Your task to perform on an android device: stop showing notifications on the lock screen Image 0: 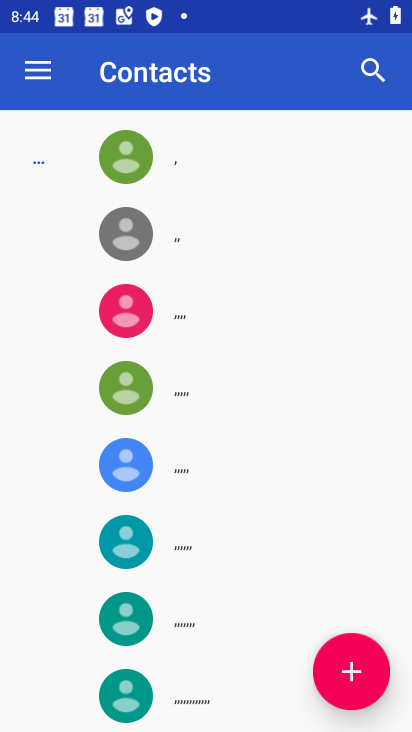
Step 0: click (259, 567)
Your task to perform on an android device: stop showing notifications on the lock screen Image 1: 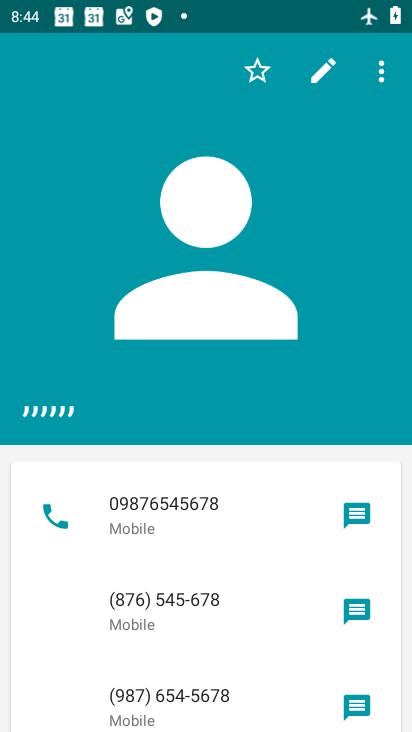
Step 1: press home button
Your task to perform on an android device: stop showing notifications on the lock screen Image 2: 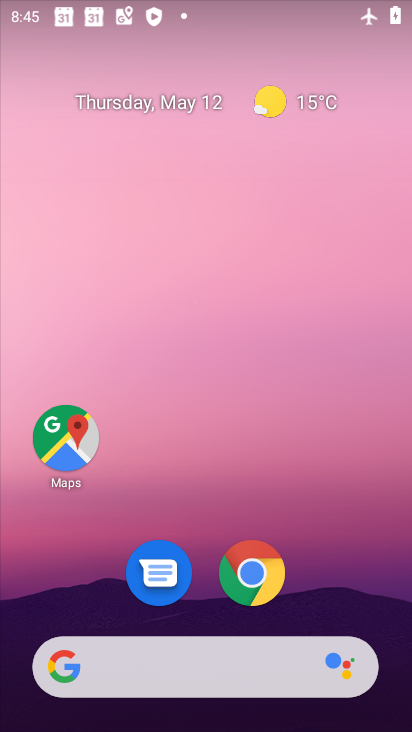
Step 2: drag from (339, 506) to (135, 101)
Your task to perform on an android device: stop showing notifications on the lock screen Image 3: 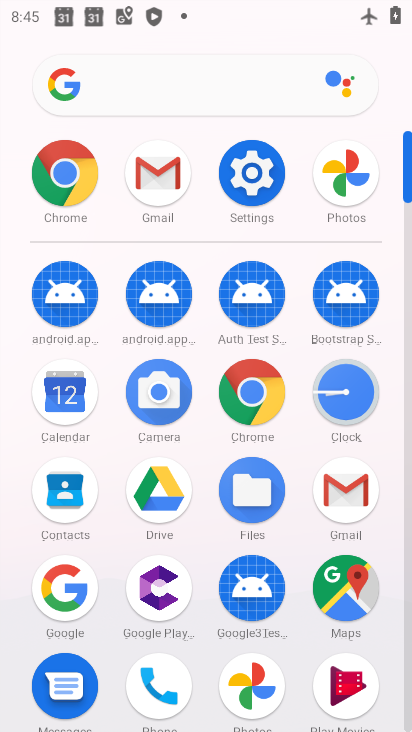
Step 3: click (253, 195)
Your task to perform on an android device: stop showing notifications on the lock screen Image 4: 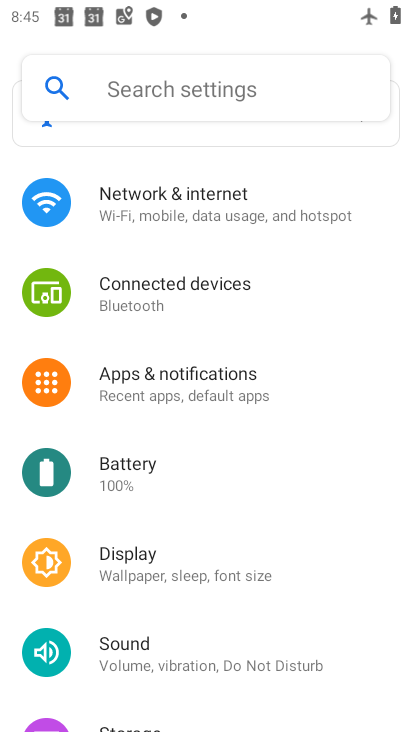
Step 4: drag from (218, 418) to (157, 141)
Your task to perform on an android device: stop showing notifications on the lock screen Image 5: 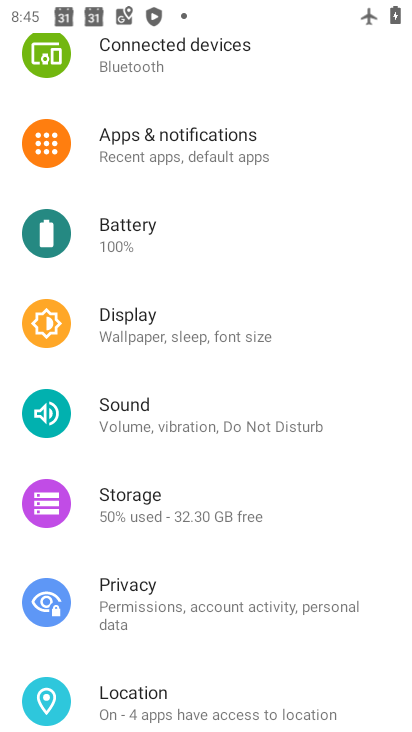
Step 5: click (181, 131)
Your task to perform on an android device: stop showing notifications on the lock screen Image 6: 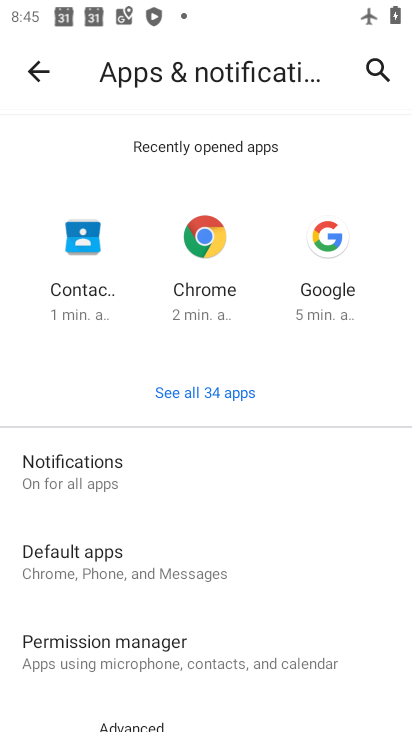
Step 6: click (80, 458)
Your task to perform on an android device: stop showing notifications on the lock screen Image 7: 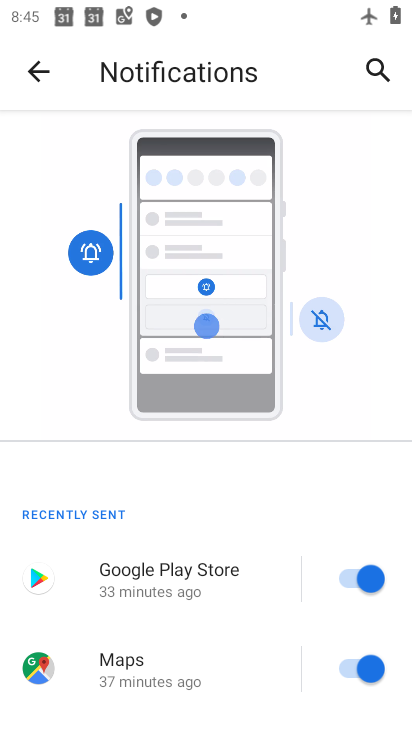
Step 7: drag from (232, 596) to (197, 248)
Your task to perform on an android device: stop showing notifications on the lock screen Image 8: 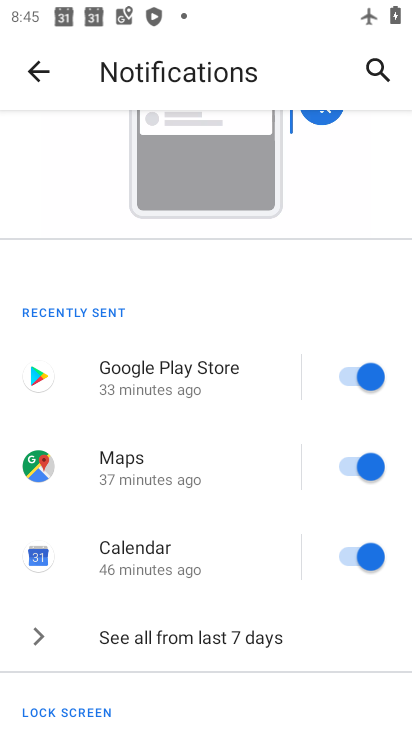
Step 8: drag from (254, 623) to (192, 255)
Your task to perform on an android device: stop showing notifications on the lock screen Image 9: 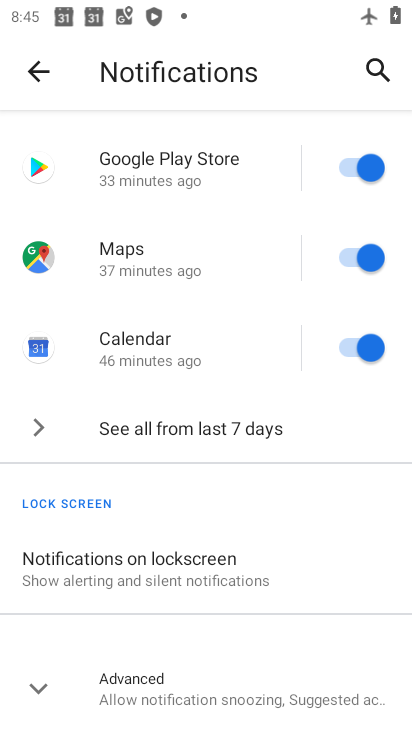
Step 9: click (154, 555)
Your task to perform on an android device: stop showing notifications on the lock screen Image 10: 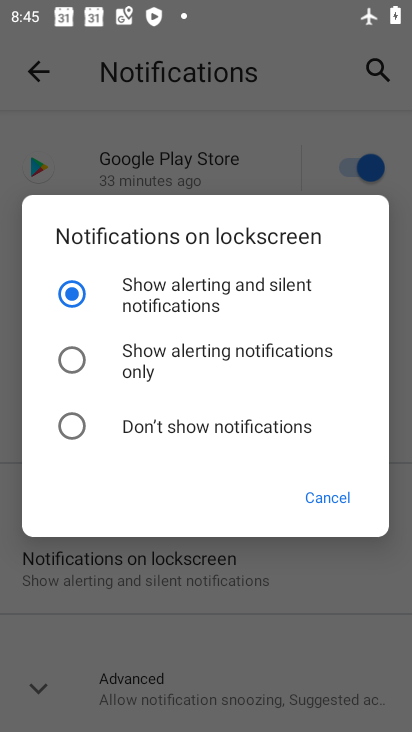
Step 10: click (60, 426)
Your task to perform on an android device: stop showing notifications on the lock screen Image 11: 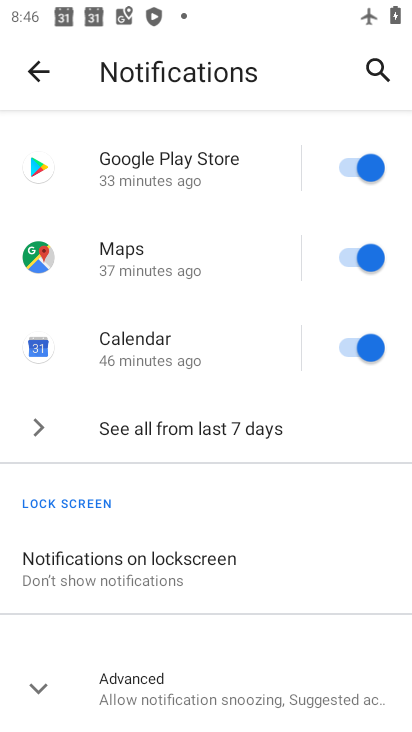
Step 11: task complete